Your task to perform on an android device: turn pop-ups on in chrome Image 0: 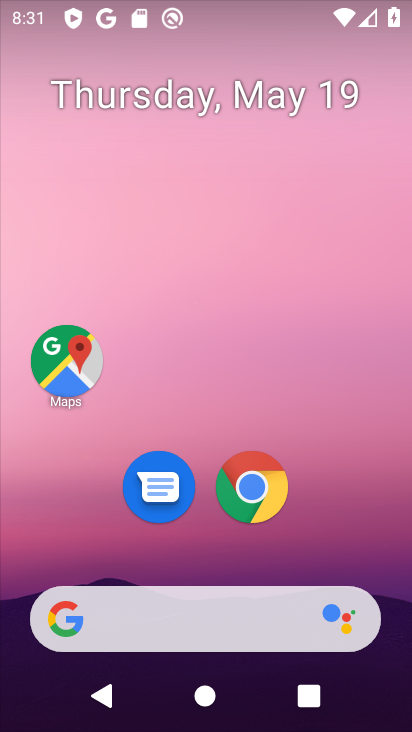
Step 0: click (252, 487)
Your task to perform on an android device: turn pop-ups on in chrome Image 1: 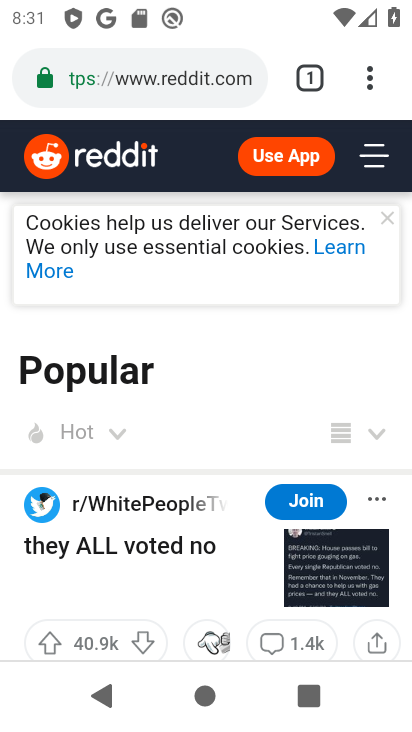
Step 1: click (365, 75)
Your task to perform on an android device: turn pop-ups on in chrome Image 2: 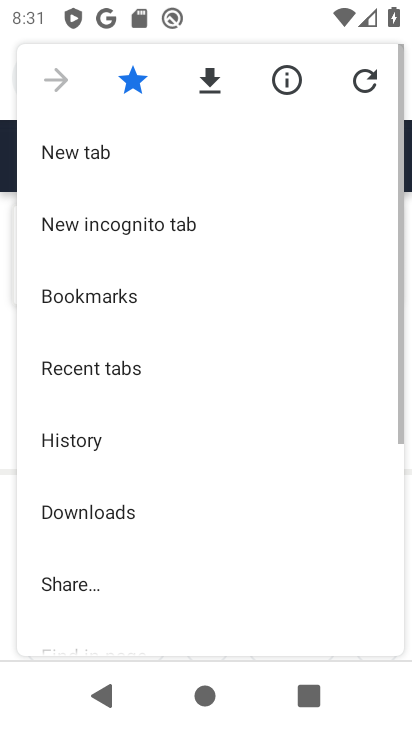
Step 2: drag from (144, 545) to (128, 91)
Your task to perform on an android device: turn pop-ups on in chrome Image 3: 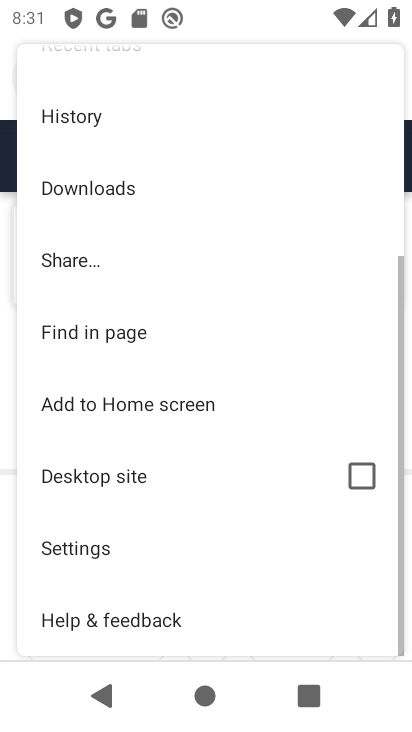
Step 3: click (72, 546)
Your task to perform on an android device: turn pop-ups on in chrome Image 4: 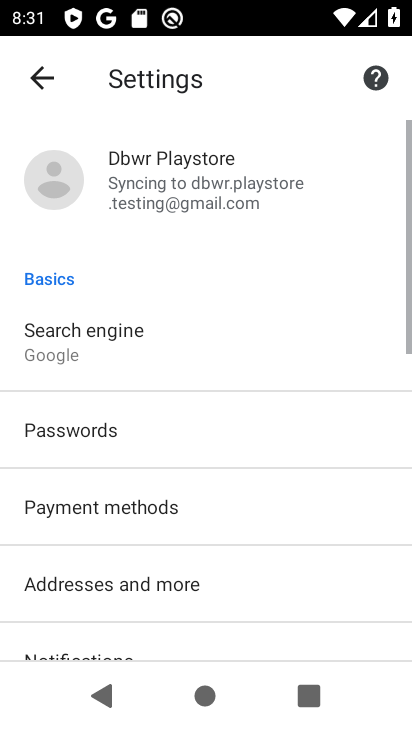
Step 4: drag from (95, 506) to (62, 198)
Your task to perform on an android device: turn pop-ups on in chrome Image 5: 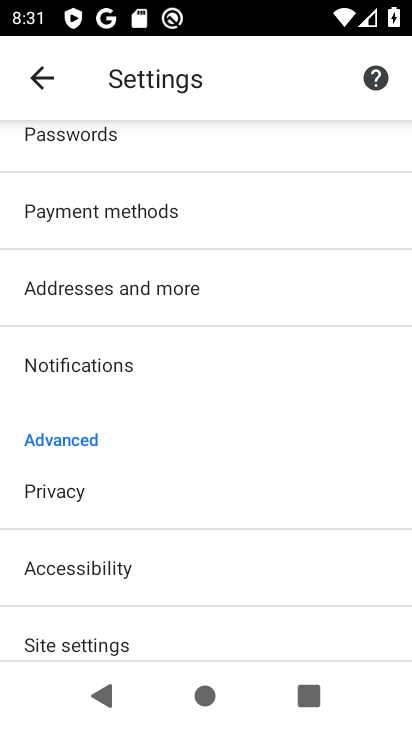
Step 5: drag from (92, 572) to (85, 356)
Your task to perform on an android device: turn pop-ups on in chrome Image 6: 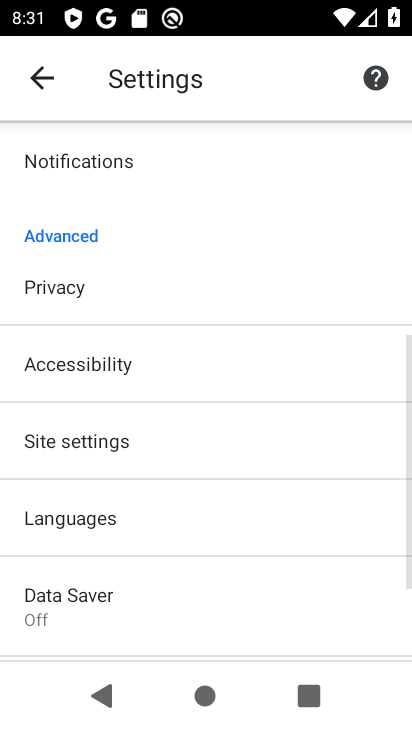
Step 6: click (94, 450)
Your task to perform on an android device: turn pop-ups on in chrome Image 7: 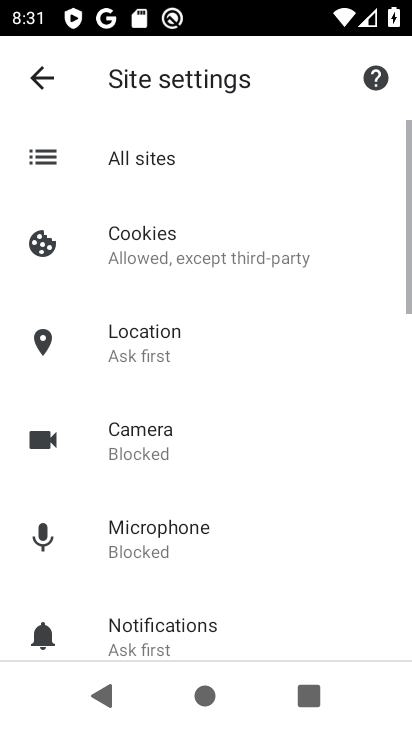
Step 7: drag from (163, 572) to (127, 46)
Your task to perform on an android device: turn pop-ups on in chrome Image 8: 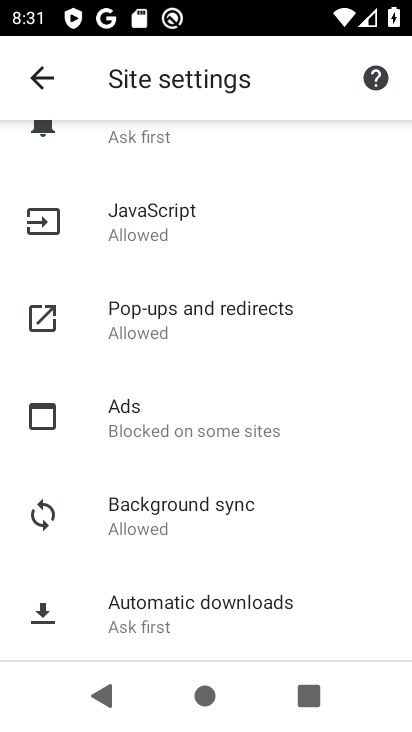
Step 8: click (161, 303)
Your task to perform on an android device: turn pop-ups on in chrome Image 9: 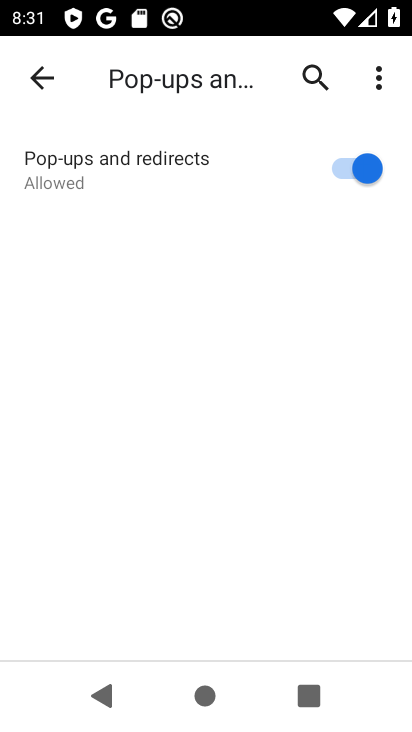
Step 9: task complete